Your task to perform on an android device: set the timer Image 0: 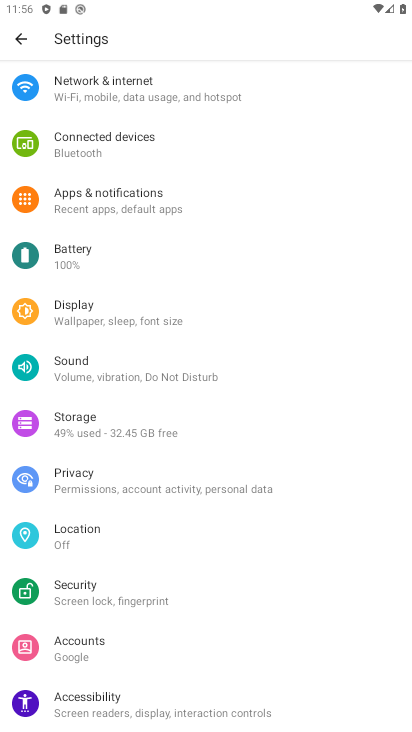
Step 0: press home button
Your task to perform on an android device: set the timer Image 1: 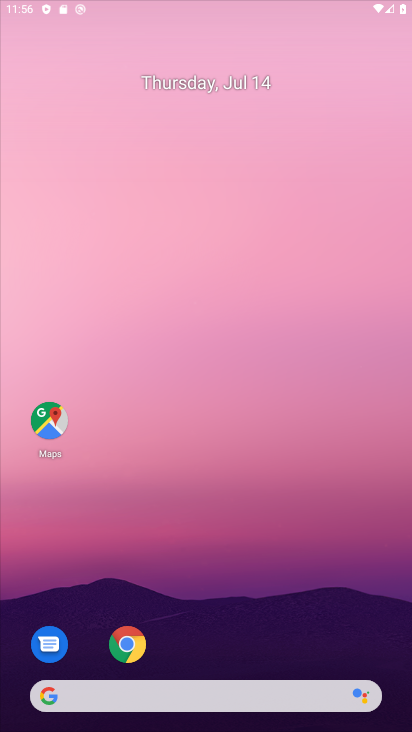
Step 1: drag from (392, 665) to (235, 87)
Your task to perform on an android device: set the timer Image 2: 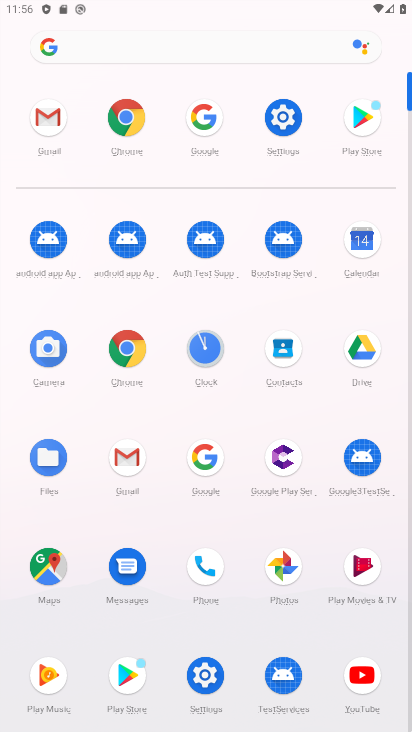
Step 2: click (202, 341)
Your task to perform on an android device: set the timer Image 3: 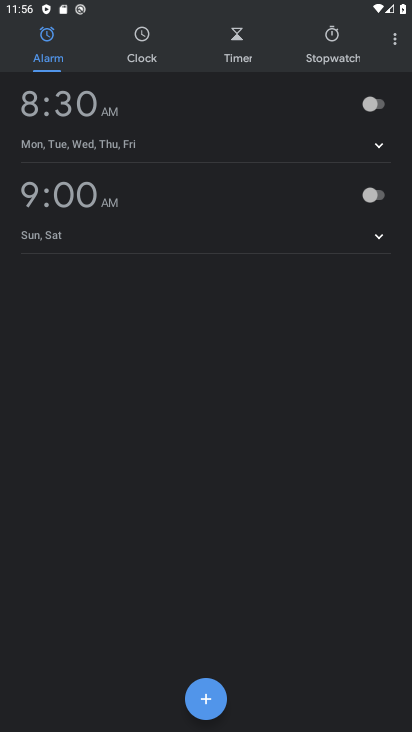
Step 3: click (235, 34)
Your task to perform on an android device: set the timer Image 4: 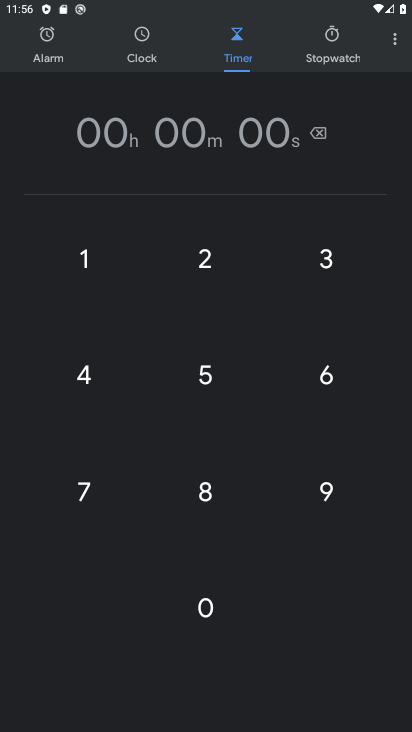
Step 4: click (316, 258)
Your task to perform on an android device: set the timer Image 5: 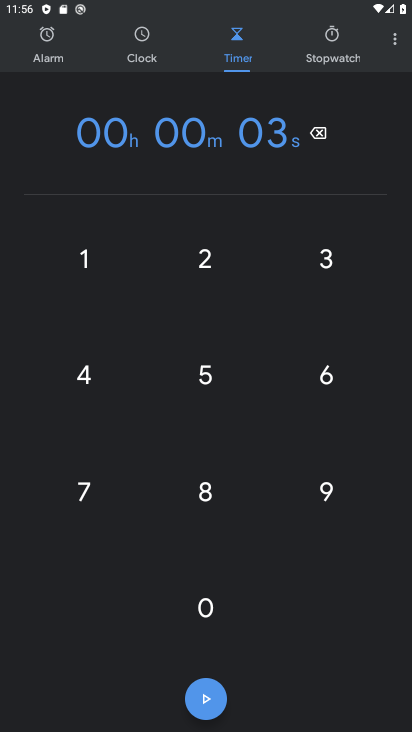
Step 5: click (190, 255)
Your task to perform on an android device: set the timer Image 6: 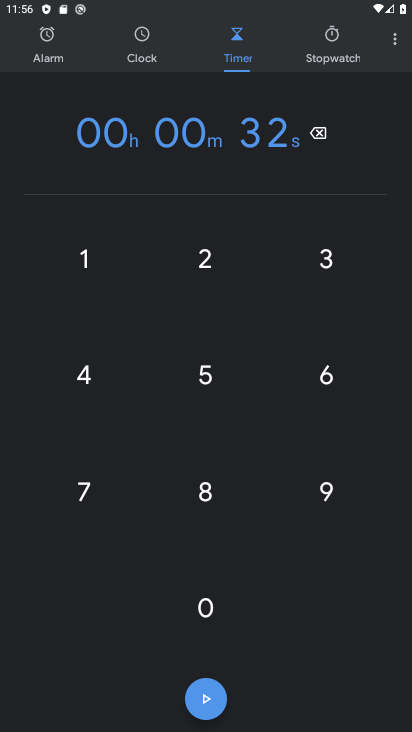
Step 6: click (193, 366)
Your task to perform on an android device: set the timer Image 7: 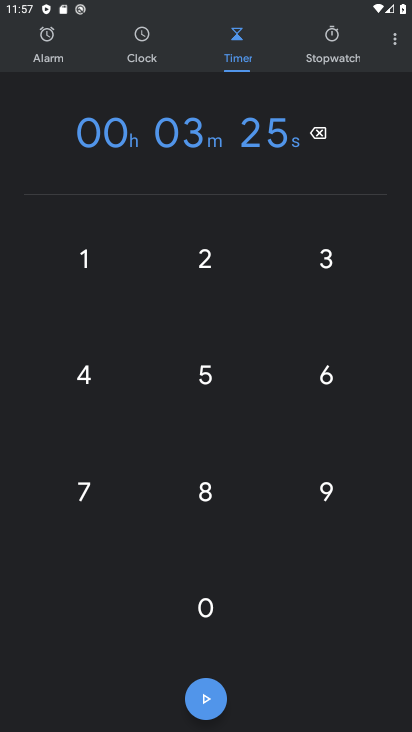
Step 7: click (350, 494)
Your task to perform on an android device: set the timer Image 8: 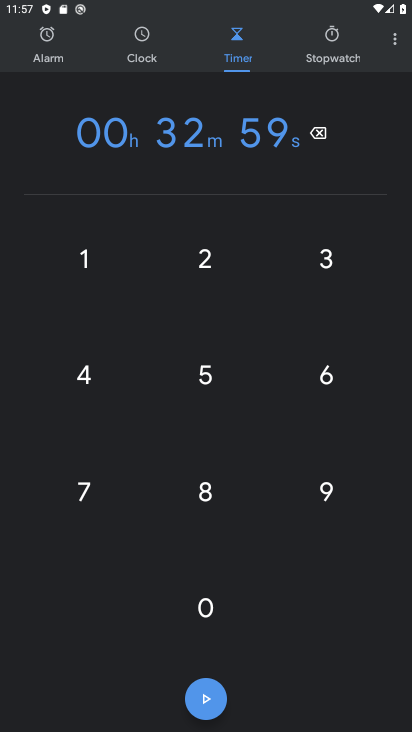
Step 8: click (198, 486)
Your task to perform on an android device: set the timer Image 9: 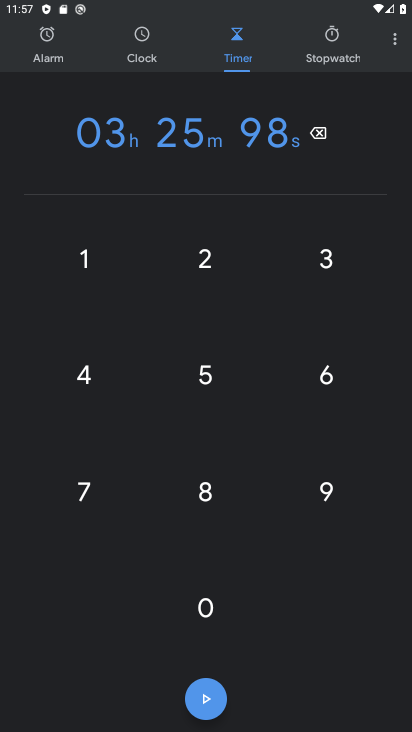
Step 9: task complete